Your task to perform on an android device: change notification settings in the gmail app Image 0: 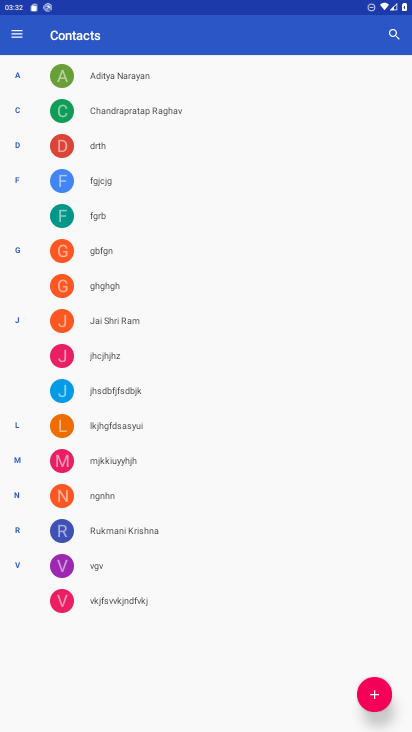
Step 0: press home button
Your task to perform on an android device: change notification settings in the gmail app Image 1: 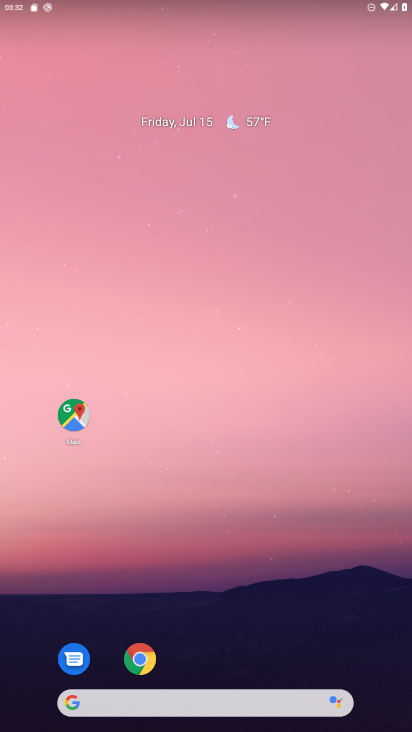
Step 1: drag from (238, 645) to (269, 82)
Your task to perform on an android device: change notification settings in the gmail app Image 2: 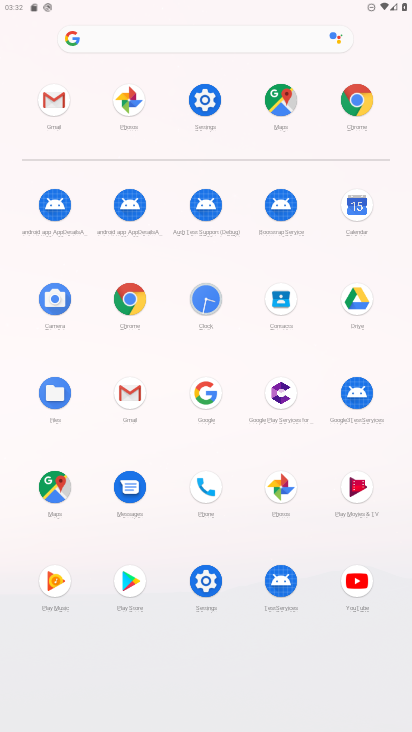
Step 2: click (131, 401)
Your task to perform on an android device: change notification settings in the gmail app Image 3: 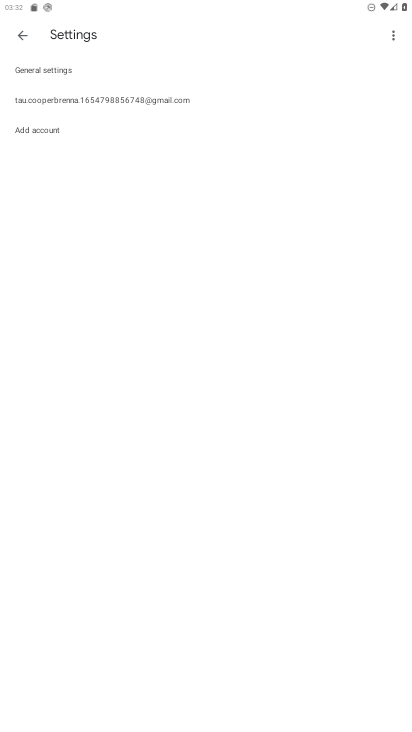
Step 3: click (66, 73)
Your task to perform on an android device: change notification settings in the gmail app Image 4: 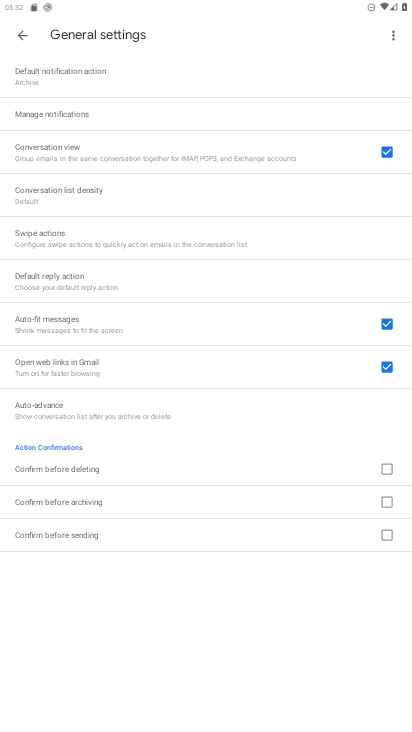
Step 4: click (74, 114)
Your task to perform on an android device: change notification settings in the gmail app Image 5: 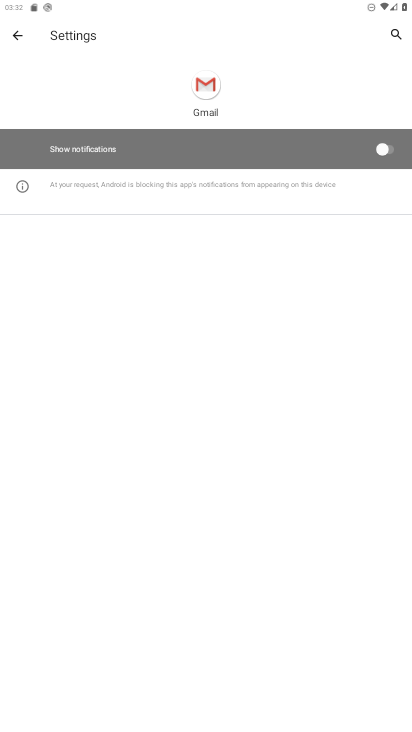
Step 5: click (354, 148)
Your task to perform on an android device: change notification settings in the gmail app Image 6: 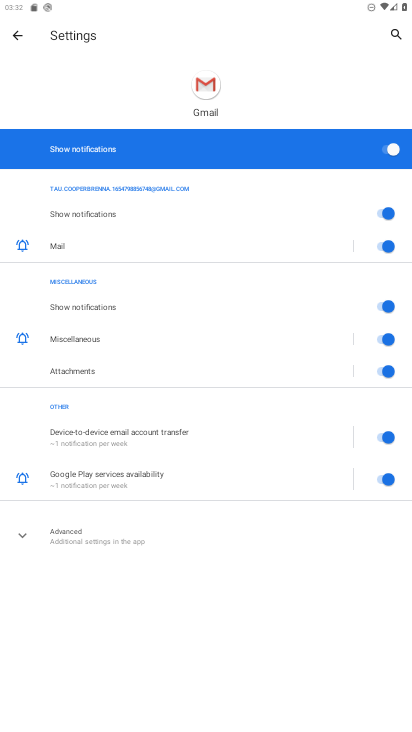
Step 6: task complete